Your task to perform on an android device: make emails show in primary in the gmail app Image 0: 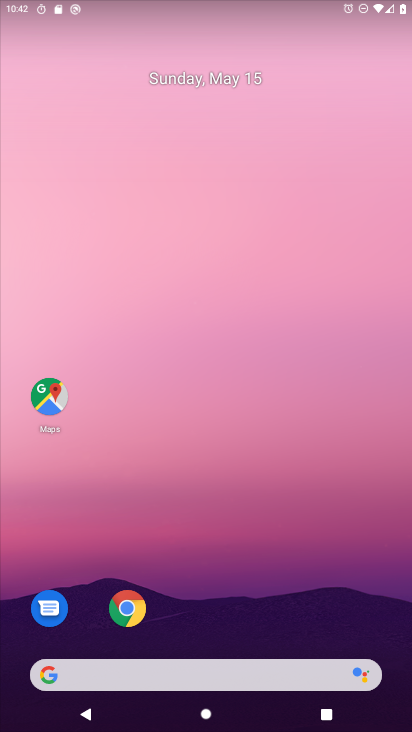
Step 0: drag from (258, 556) to (334, 158)
Your task to perform on an android device: make emails show in primary in the gmail app Image 1: 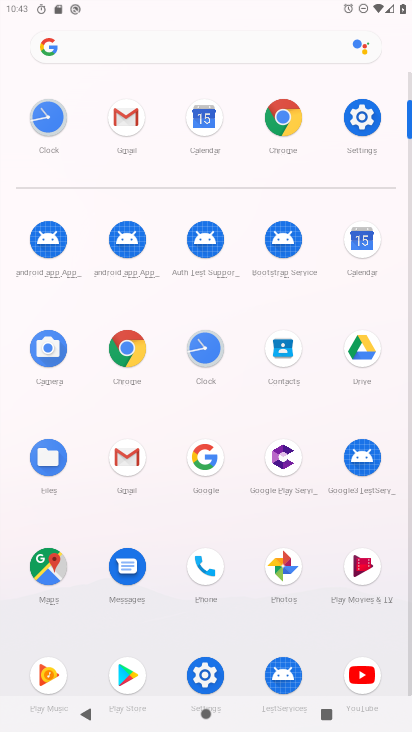
Step 1: click (130, 465)
Your task to perform on an android device: make emails show in primary in the gmail app Image 2: 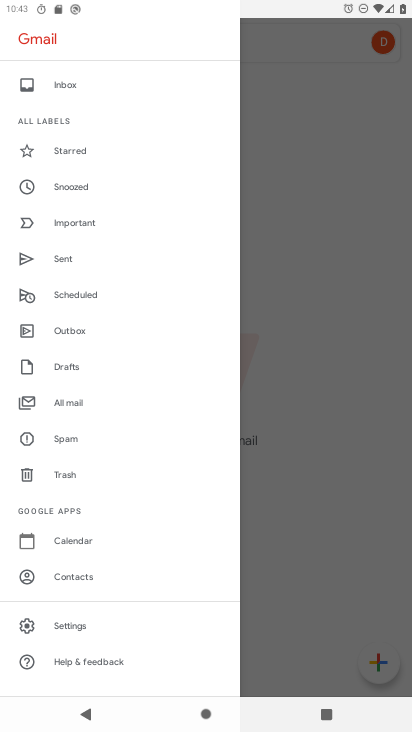
Step 2: drag from (163, 240) to (124, 583)
Your task to perform on an android device: make emails show in primary in the gmail app Image 3: 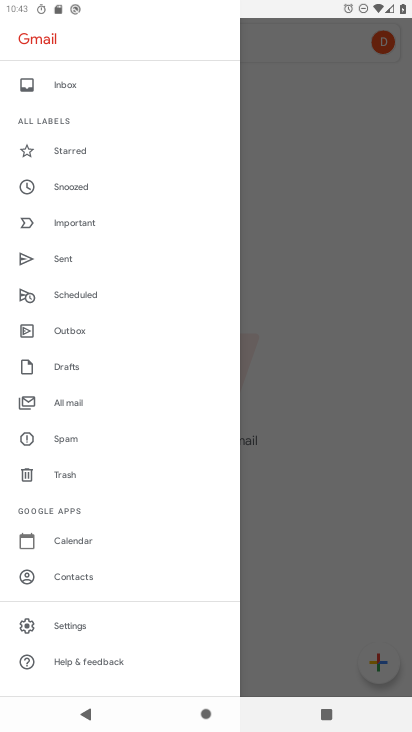
Step 3: click (71, 629)
Your task to perform on an android device: make emails show in primary in the gmail app Image 4: 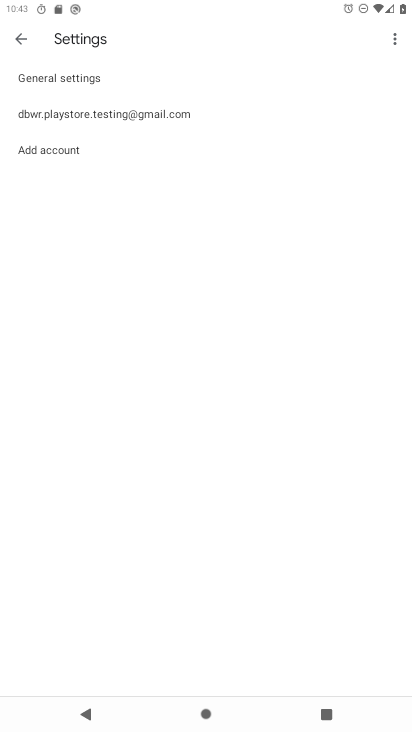
Step 4: click (146, 123)
Your task to perform on an android device: make emails show in primary in the gmail app Image 5: 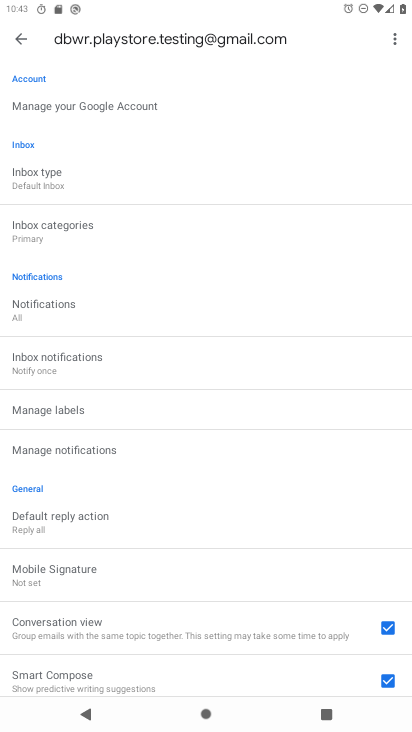
Step 5: click (82, 181)
Your task to perform on an android device: make emails show in primary in the gmail app Image 6: 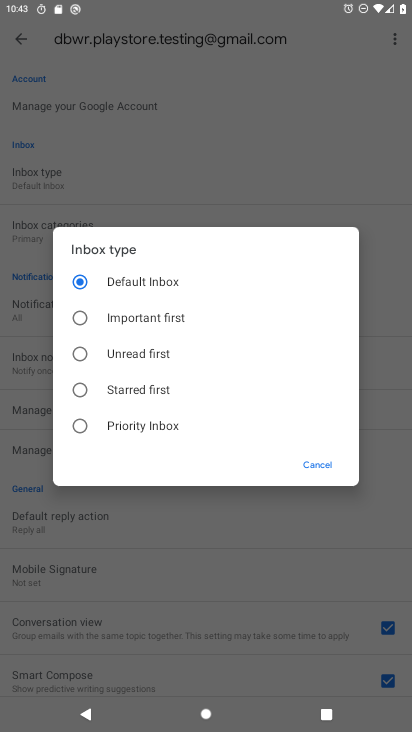
Step 6: task complete